Your task to perform on an android device: turn pop-ups on in chrome Image 0: 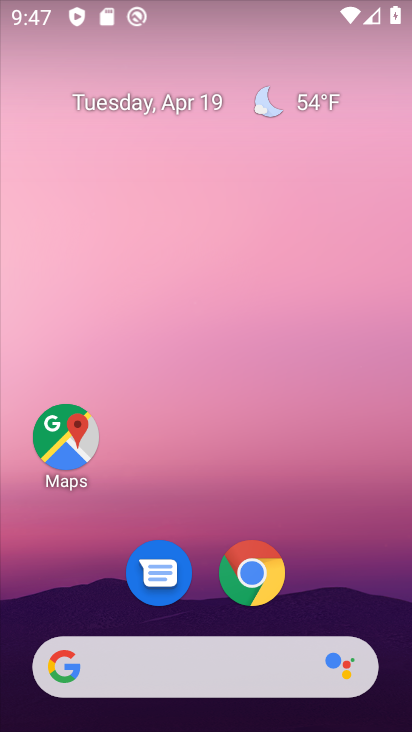
Step 0: click (253, 578)
Your task to perform on an android device: turn pop-ups on in chrome Image 1: 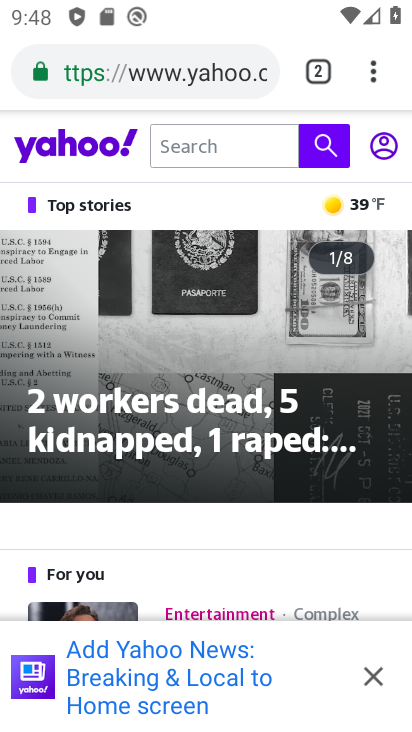
Step 1: click (370, 69)
Your task to perform on an android device: turn pop-ups on in chrome Image 2: 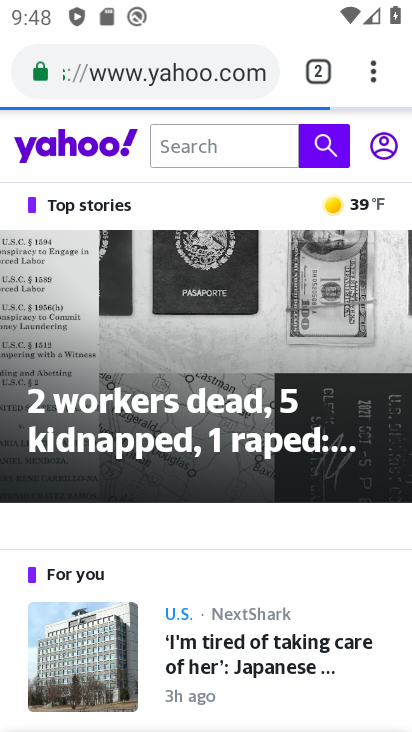
Step 2: drag from (373, 68) to (144, 570)
Your task to perform on an android device: turn pop-ups on in chrome Image 3: 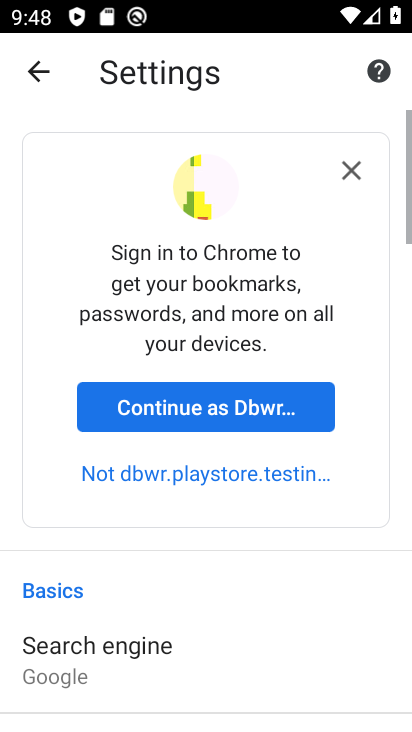
Step 3: click (144, 570)
Your task to perform on an android device: turn pop-ups on in chrome Image 4: 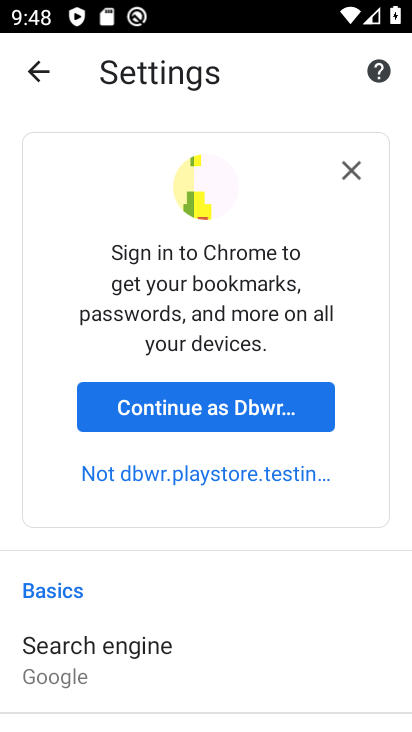
Step 4: drag from (147, 543) to (168, 150)
Your task to perform on an android device: turn pop-ups on in chrome Image 5: 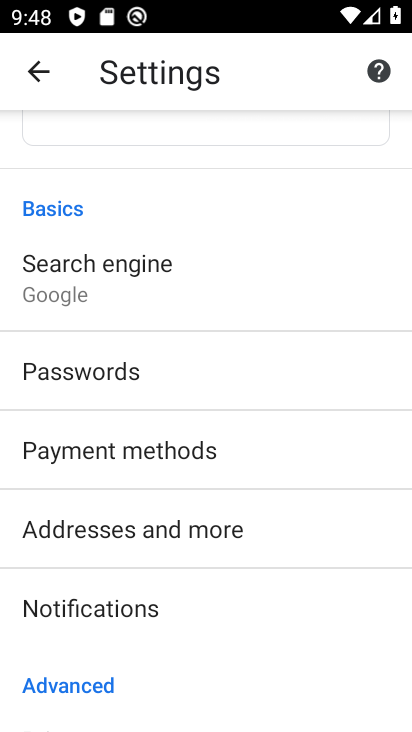
Step 5: drag from (175, 520) to (161, 168)
Your task to perform on an android device: turn pop-ups on in chrome Image 6: 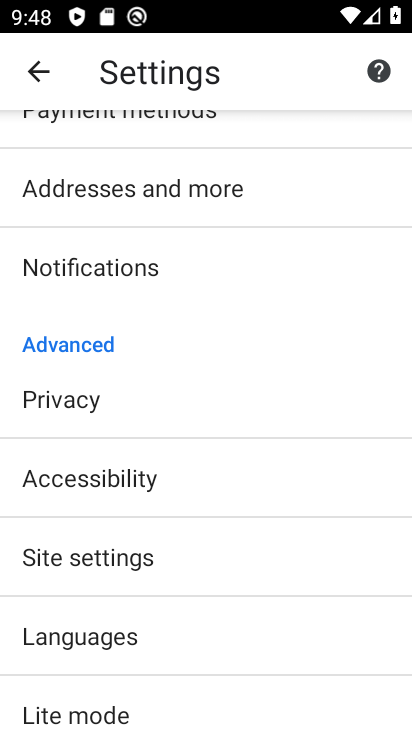
Step 6: click (102, 560)
Your task to perform on an android device: turn pop-ups on in chrome Image 7: 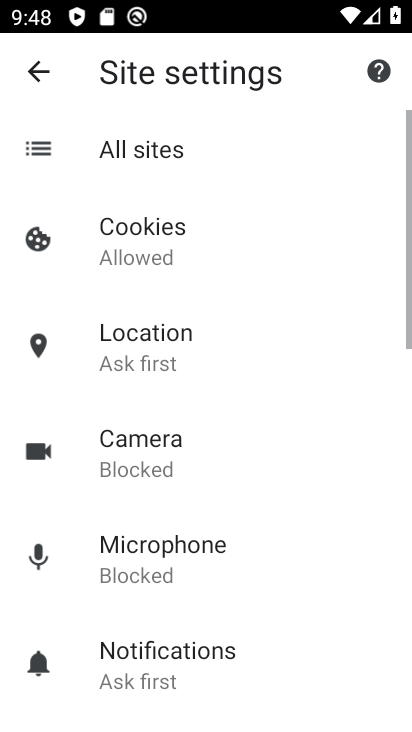
Step 7: drag from (249, 522) to (253, 79)
Your task to perform on an android device: turn pop-ups on in chrome Image 8: 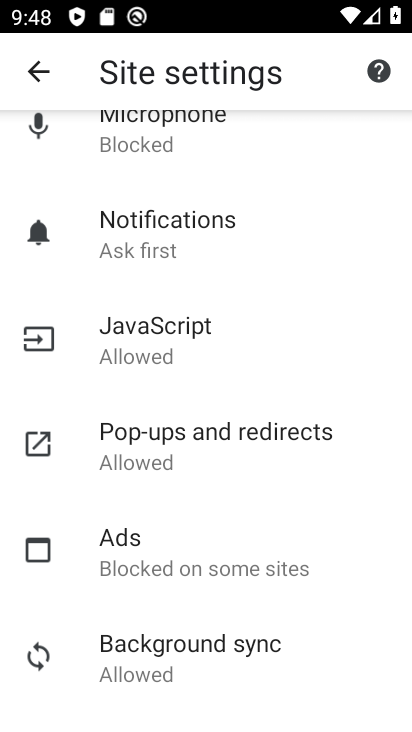
Step 8: click (147, 442)
Your task to perform on an android device: turn pop-ups on in chrome Image 9: 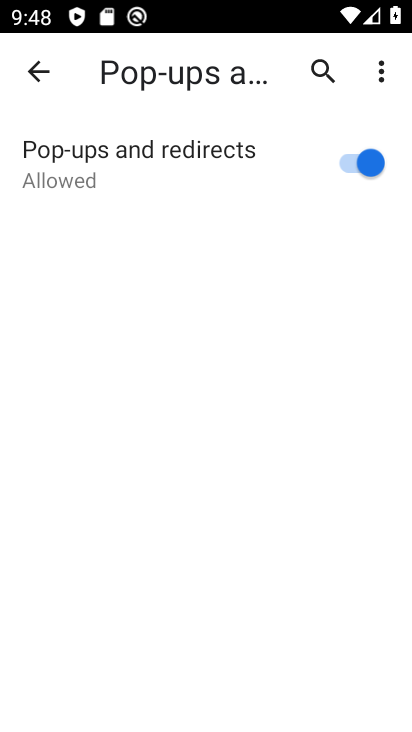
Step 9: task complete